Your task to perform on an android device: turn off notifications in google photos Image 0: 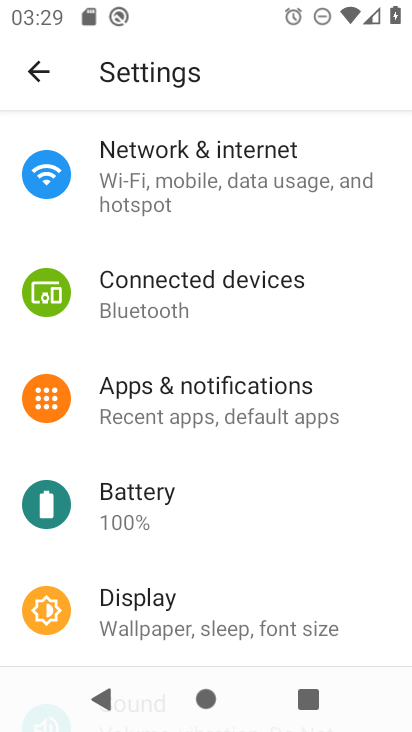
Step 0: press home button
Your task to perform on an android device: turn off notifications in google photos Image 1: 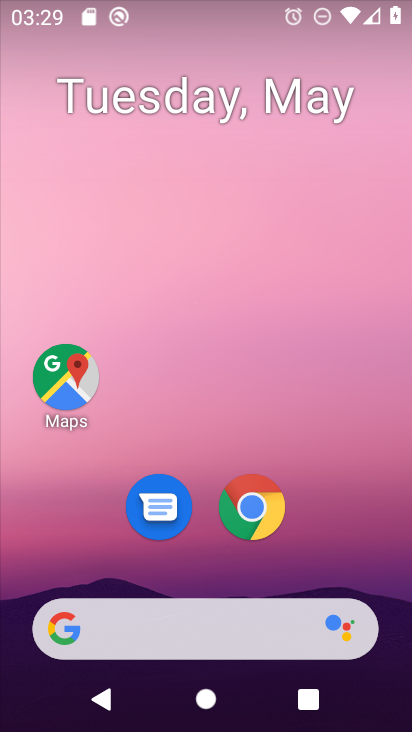
Step 1: drag from (212, 582) to (182, 209)
Your task to perform on an android device: turn off notifications in google photos Image 2: 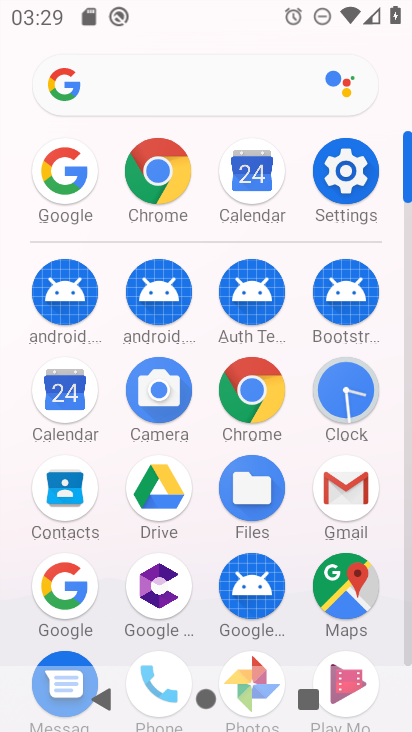
Step 2: drag from (225, 564) to (201, 240)
Your task to perform on an android device: turn off notifications in google photos Image 3: 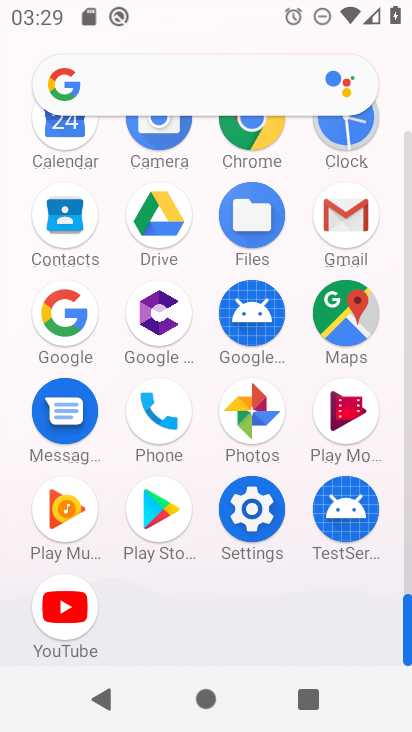
Step 3: click (258, 413)
Your task to perform on an android device: turn off notifications in google photos Image 4: 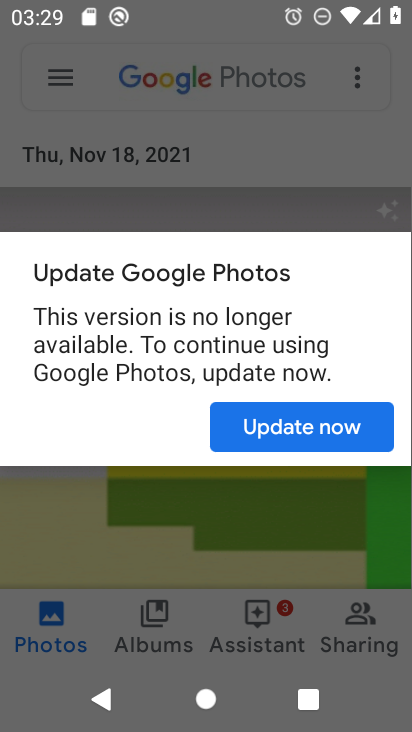
Step 4: click (260, 420)
Your task to perform on an android device: turn off notifications in google photos Image 5: 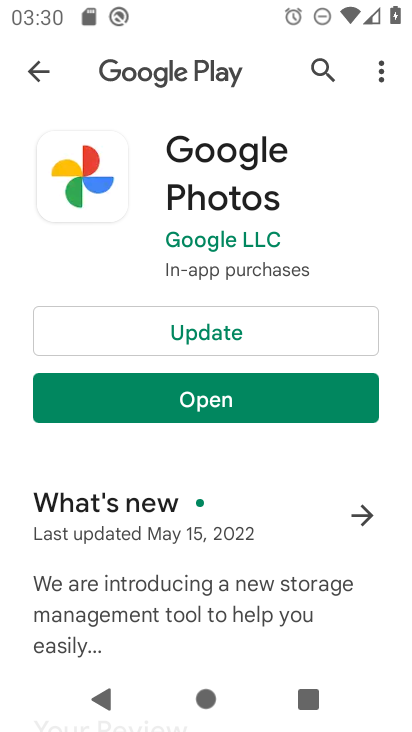
Step 5: click (207, 413)
Your task to perform on an android device: turn off notifications in google photos Image 6: 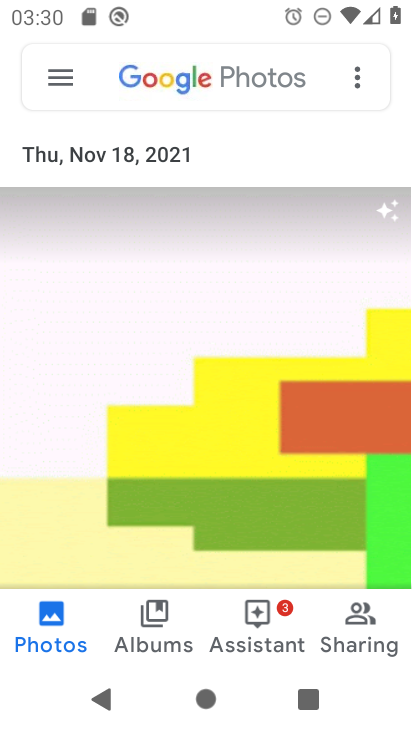
Step 6: click (53, 85)
Your task to perform on an android device: turn off notifications in google photos Image 7: 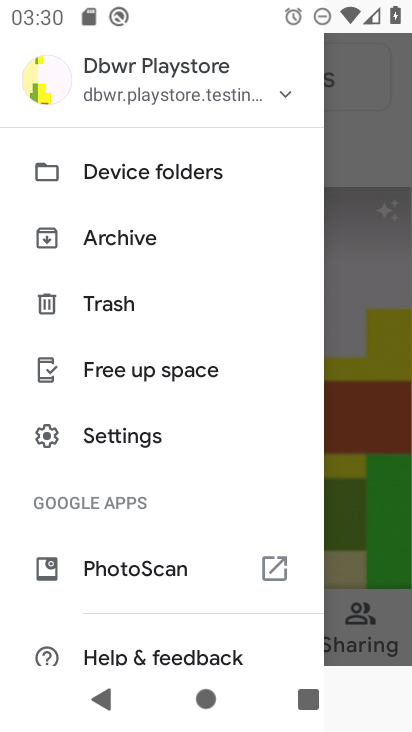
Step 7: drag from (156, 573) to (153, 308)
Your task to perform on an android device: turn off notifications in google photos Image 8: 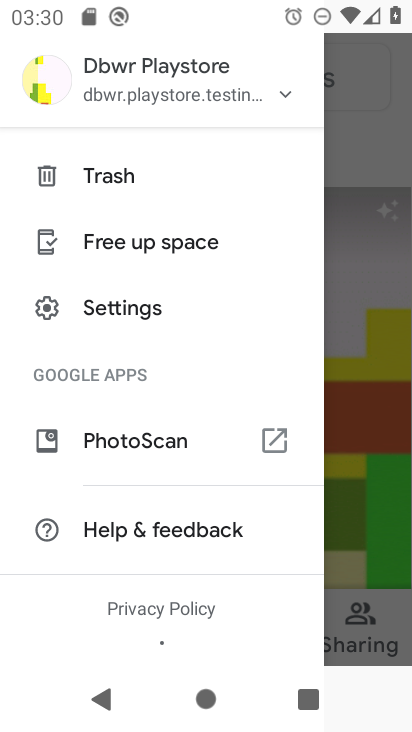
Step 8: click (128, 306)
Your task to perform on an android device: turn off notifications in google photos Image 9: 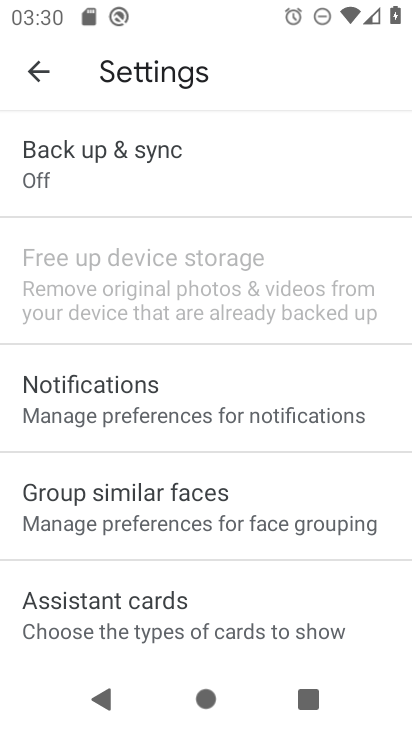
Step 9: click (149, 421)
Your task to perform on an android device: turn off notifications in google photos Image 10: 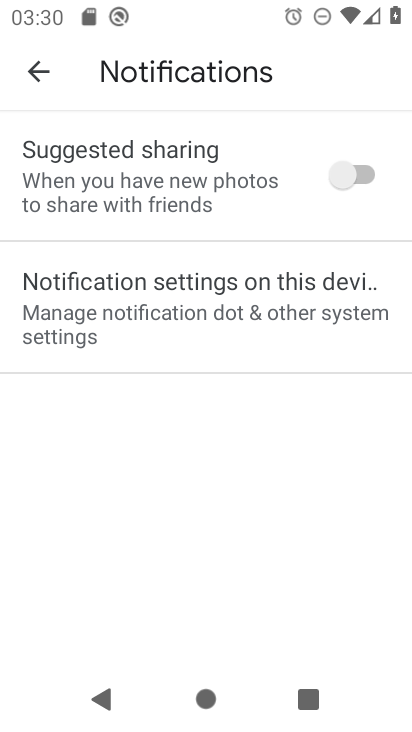
Step 10: click (166, 343)
Your task to perform on an android device: turn off notifications in google photos Image 11: 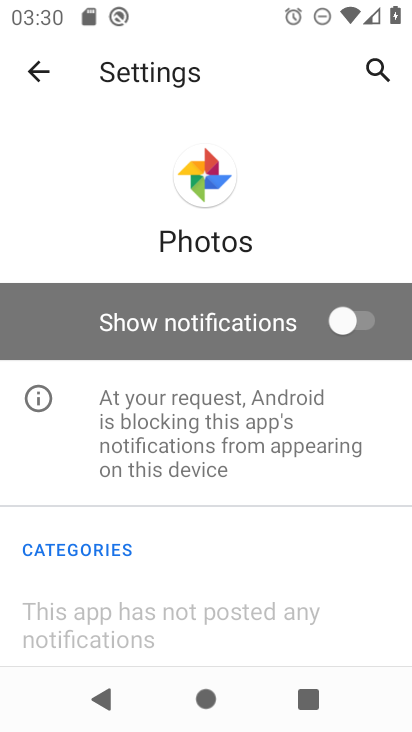
Step 11: task complete